Your task to perform on an android device: Open ESPN.com Image 0: 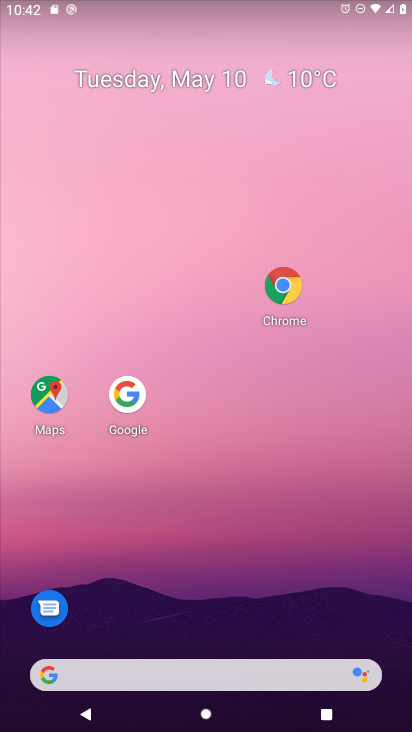
Step 0: drag from (173, 633) to (281, 179)
Your task to perform on an android device: Open ESPN.com Image 1: 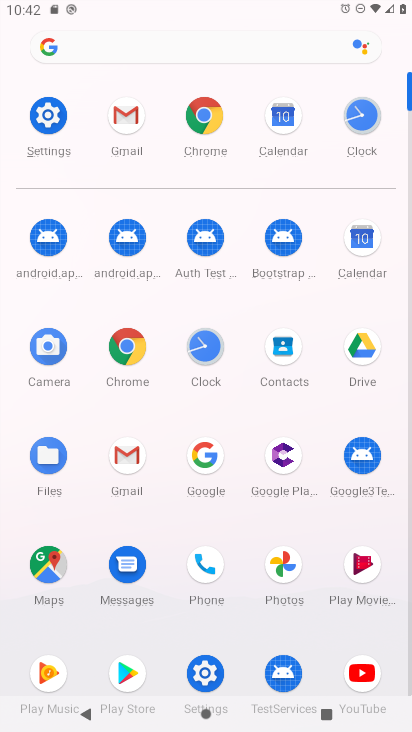
Step 1: click (203, 123)
Your task to perform on an android device: Open ESPN.com Image 2: 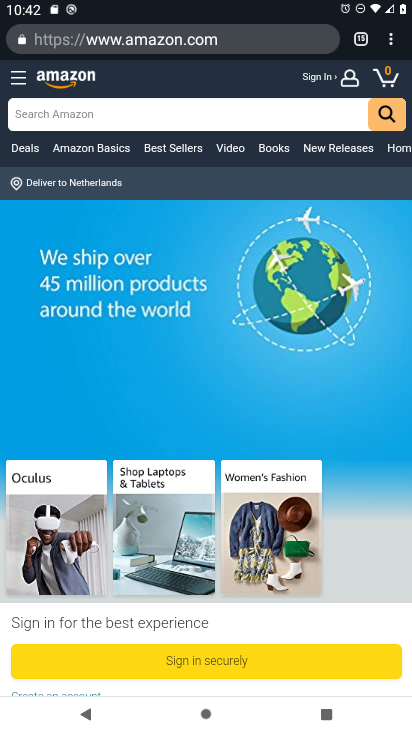
Step 2: drag from (391, 47) to (331, 77)
Your task to perform on an android device: Open ESPN.com Image 3: 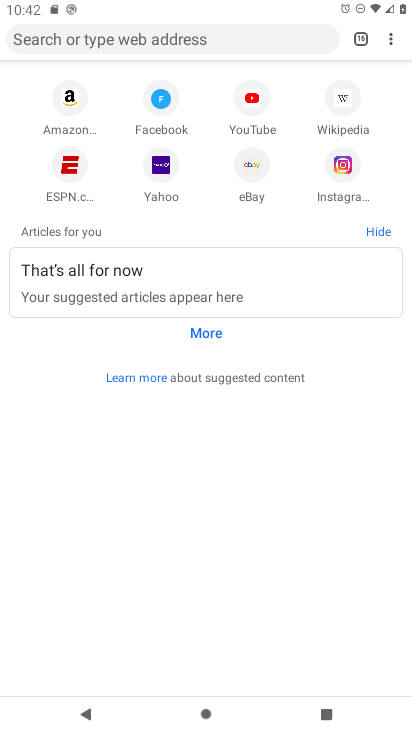
Step 3: click (64, 172)
Your task to perform on an android device: Open ESPN.com Image 4: 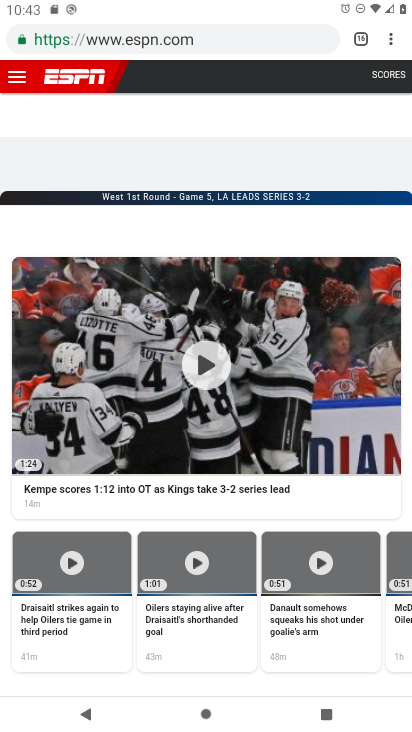
Step 4: task complete